Your task to perform on an android device: turn pop-ups on in chrome Image 0: 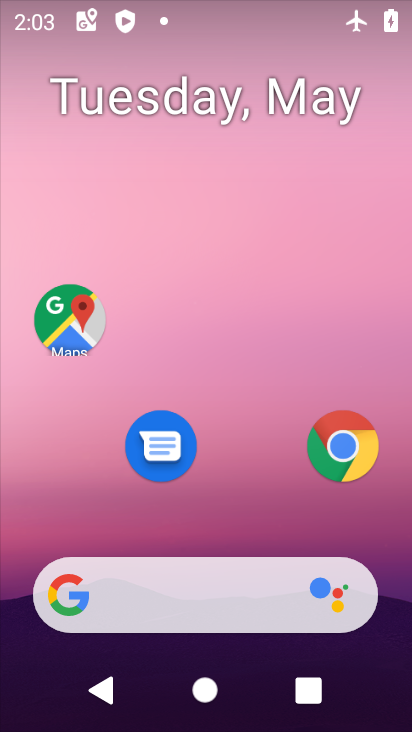
Step 0: click (357, 438)
Your task to perform on an android device: turn pop-ups on in chrome Image 1: 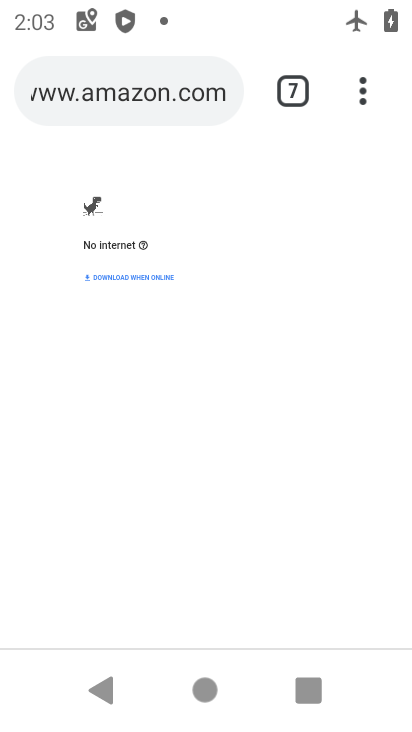
Step 1: click (367, 93)
Your task to perform on an android device: turn pop-ups on in chrome Image 2: 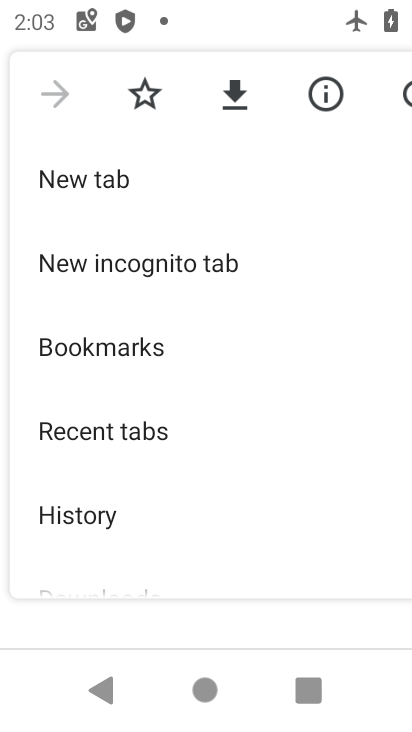
Step 2: drag from (273, 559) to (287, 175)
Your task to perform on an android device: turn pop-ups on in chrome Image 3: 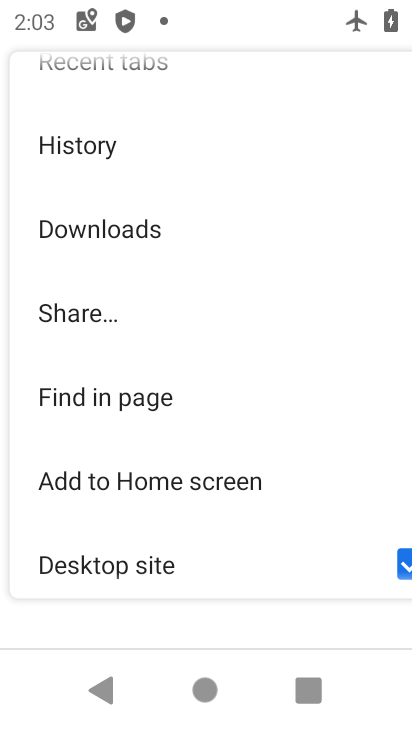
Step 3: drag from (143, 567) to (142, 86)
Your task to perform on an android device: turn pop-ups on in chrome Image 4: 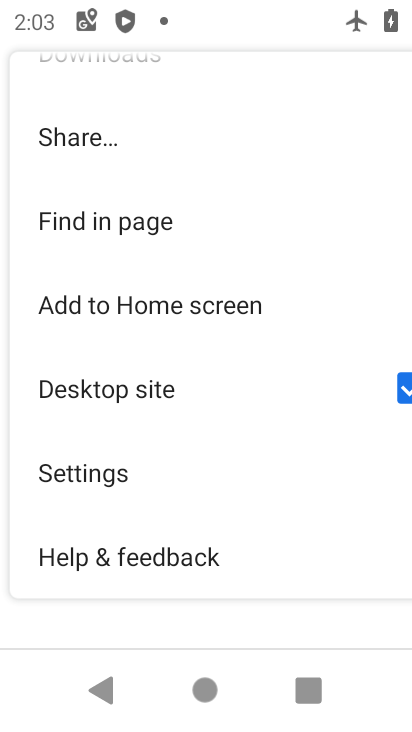
Step 4: click (114, 474)
Your task to perform on an android device: turn pop-ups on in chrome Image 5: 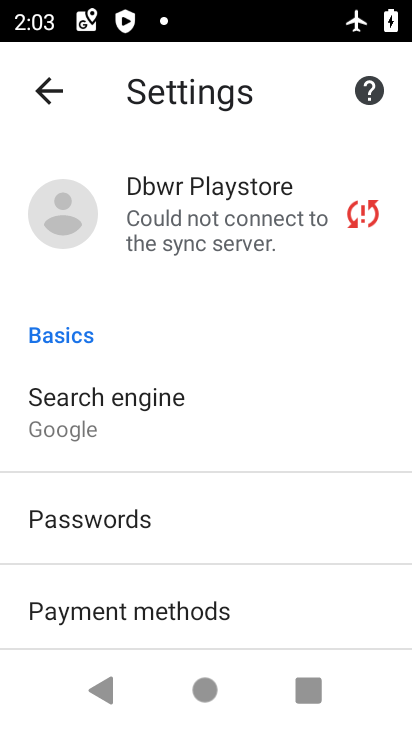
Step 5: drag from (206, 570) to (163, 138)
Your task to perform on an android device: turn pop-ups on in chrome Image 6: 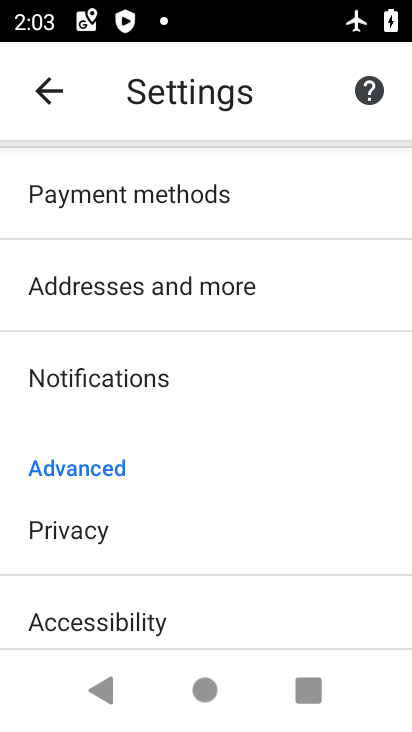
Step 6: drag from (137, 586) to (123, 157)
Your task to perform on an android device: turn pop-ups on in chrome Image 7: 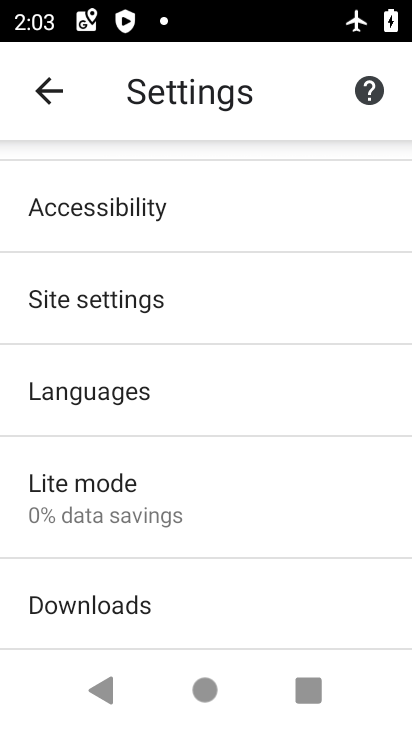
Step 7: drag from (157, 567) to (162, 347)
Your task to perform on an android device: turn pop-ups on in chrome Image 8: 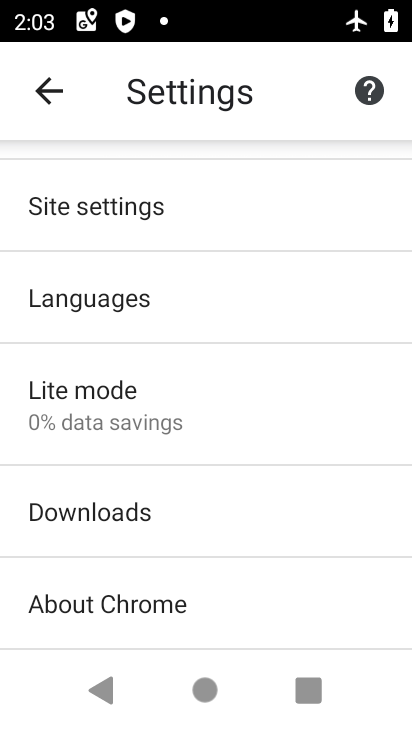
Step 8: click (117, 226)
Your task to perform on an android device: turn pop-ups on in chrome Image 9: 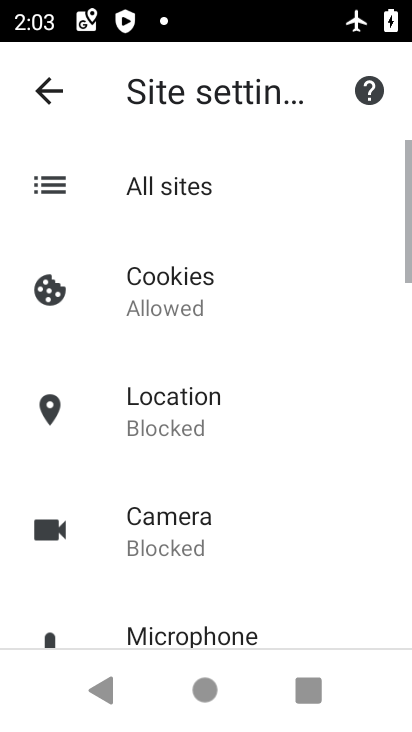
Step 9: drag from (219, 548) to (210, 181)
Your task to perform on an android device: turn pop-ups on in chrome Image 10: 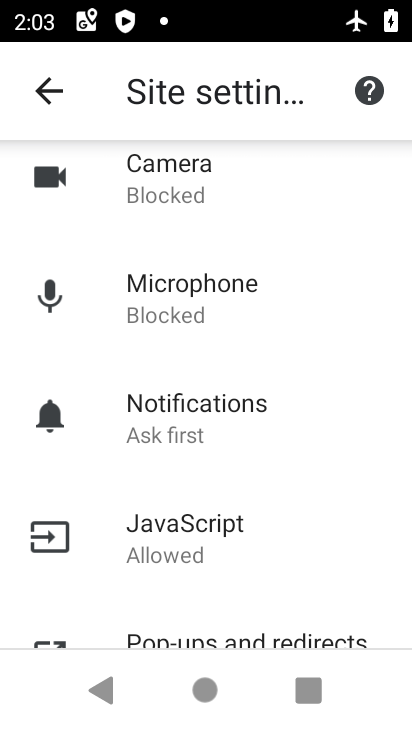
Step 10: drag from (196, 223) to (177, 179)
Your task to perform on an android device: turn pop-ups on in chrome Image 11: 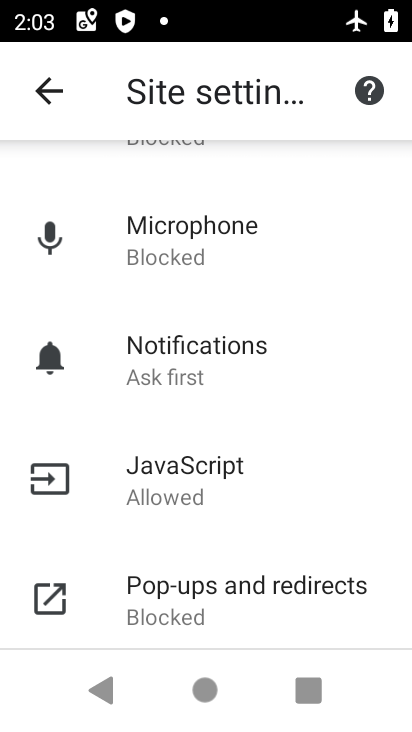
Step 11: click (231, 578)
Your task to perform on an android device: turn pop-ups on in chrome Image 12: 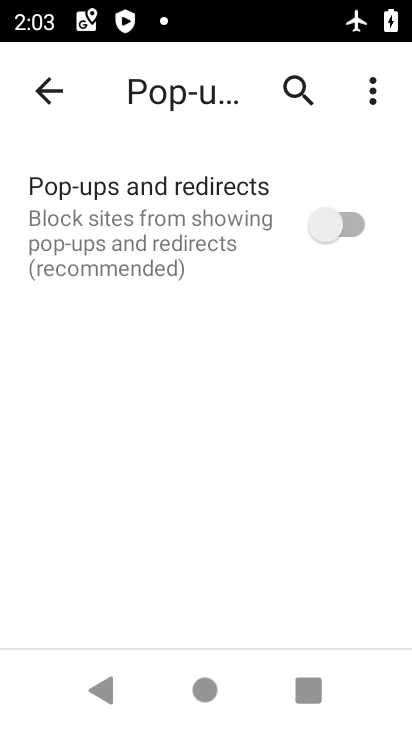
Step 12: click (327, 227)
Your task to perform on an android device: turn pop-ups on in chrome Image 13: 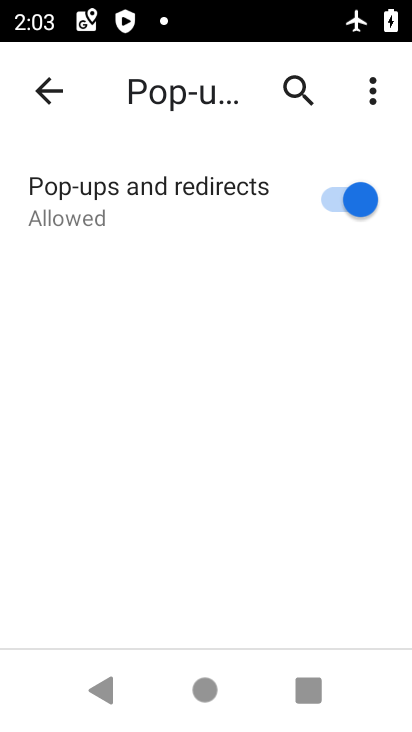
Step 13: task complete